Your task to perform on an android device: add a label to a message in the gmail app Image 0: 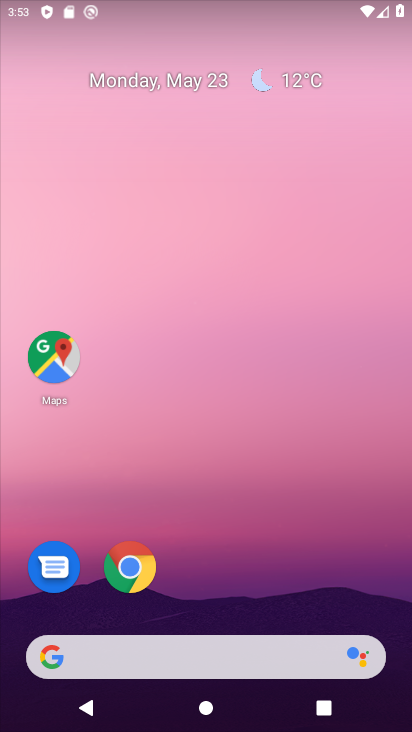
Step 0: drag from (248, 563) to (272, 163)
Your task to perform on an android device: add a label to a message in the gmail app Image 1: 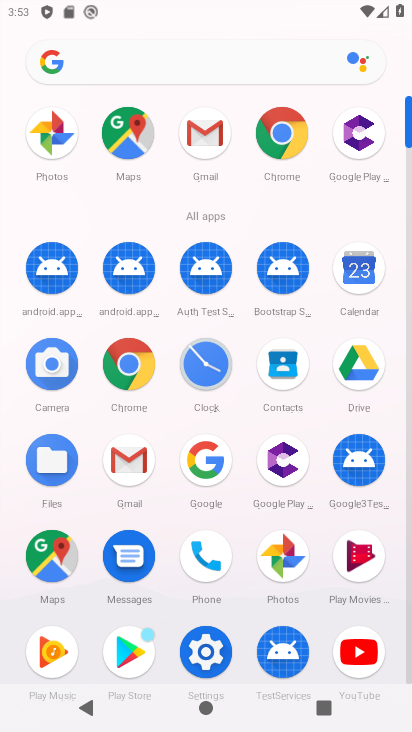
Step 1: click (130, 461)
Your task to perform on an android device: add a label to a message in the gmail app Image 2: 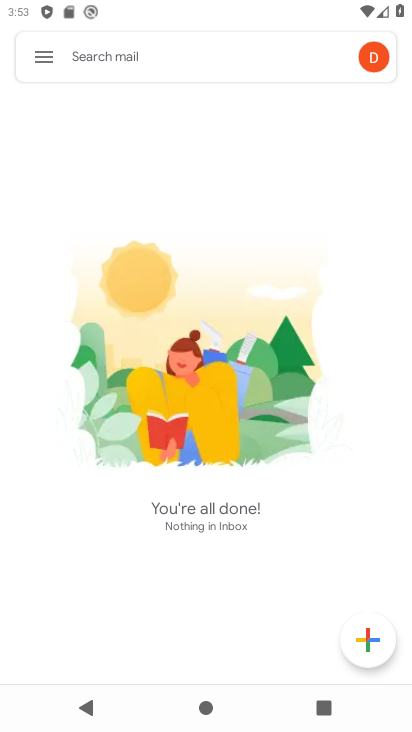
Step 2: click (42, 51)
Your task to perform on an android device: add a label to a message in the gmail app Image 3: 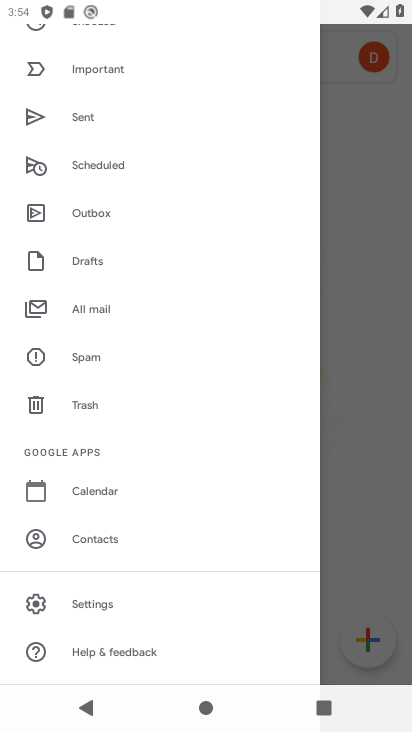
Step 3: click (86, 305)
Your task to perform on an android device: add a label to a message in the gmail app Image 4: 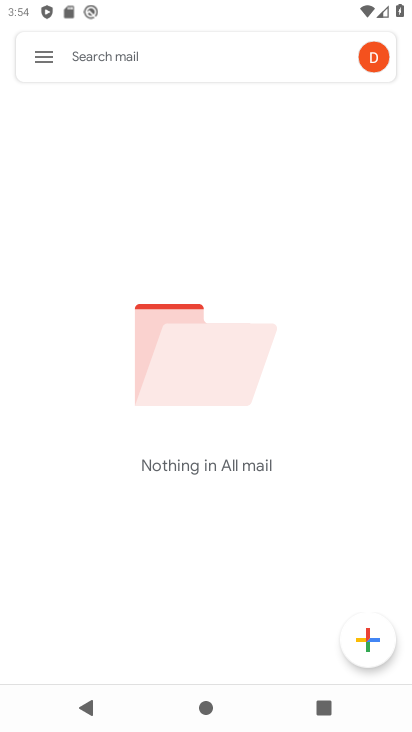
Step 4: task complete